Your task to perform on an android device: check the backup settings in the google photos Image 0: 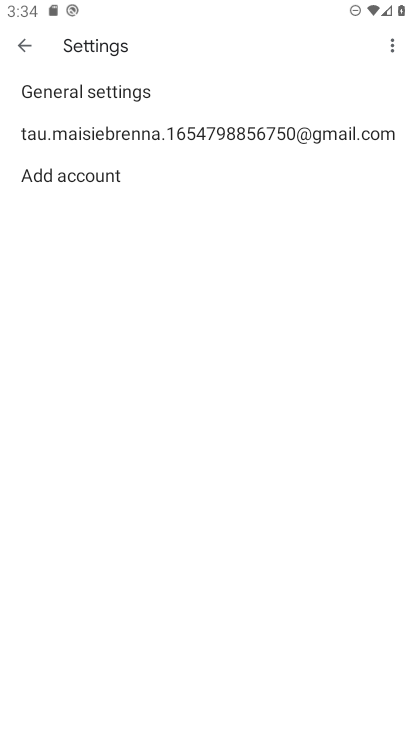
Step 0: press back button
Your task to perform on an android device: check the backup settings in the google photos Image 1: 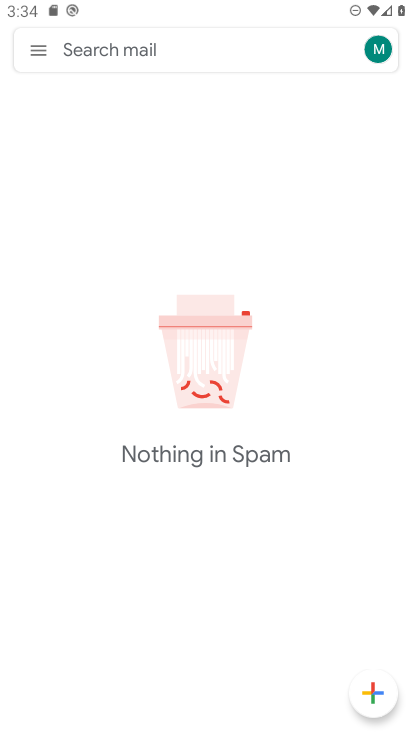
Step 1: press home button
Your task to perform on an android device: check the backup settings in the google photos Image 2: 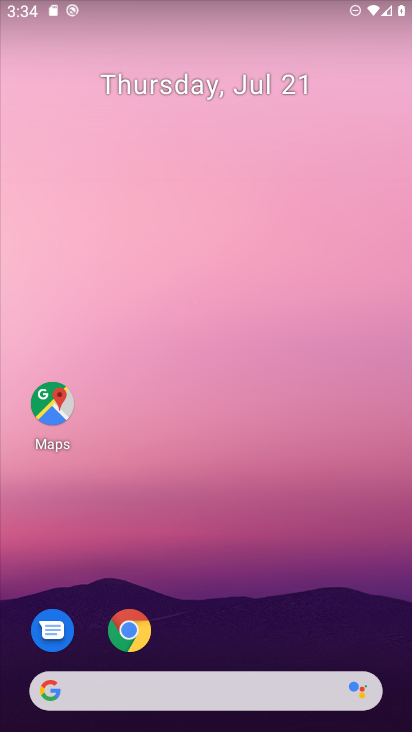
Step 2: drag from (210, 623) to (308, 43)
Your task to perform on an android device: check the backup settings in the google photos Image 3: 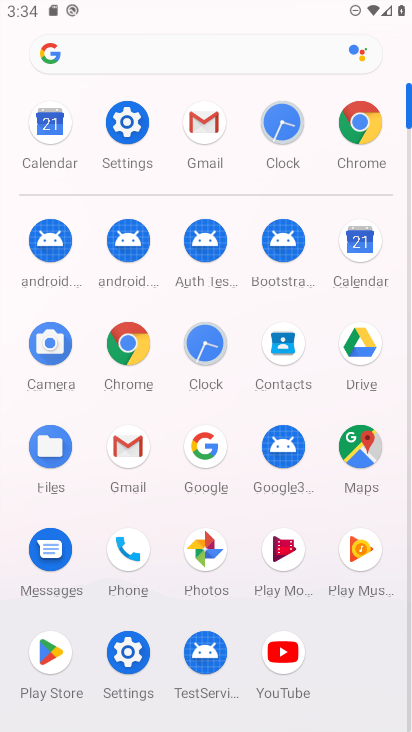
Step 3: click (208, 552)
Your task to perform on an android device: check the backup settings in the google photos Image 4: 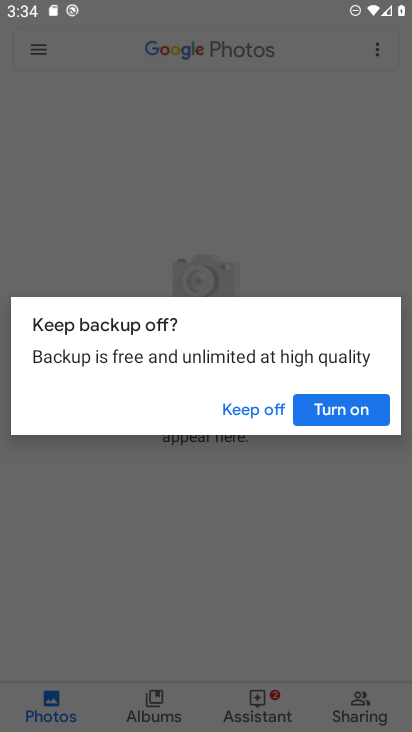
Step 4: click (264, 406)
Your task to perform on an android device: check the backup settings in the google photos Image 5: 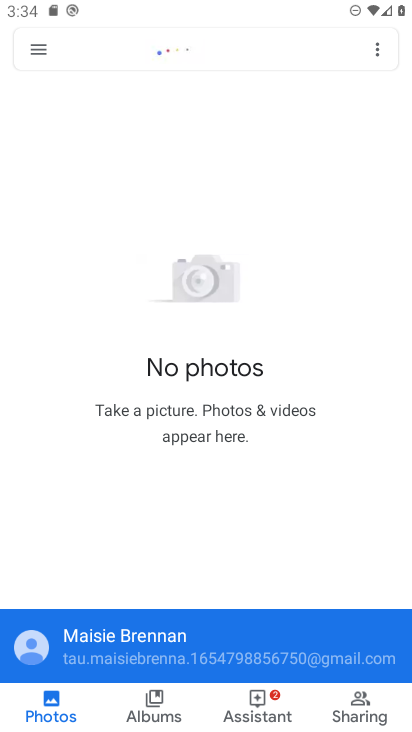
Step 5: click (43, 48)
Your task to perform on an android device: check the backup settings in the google photos Image 6: 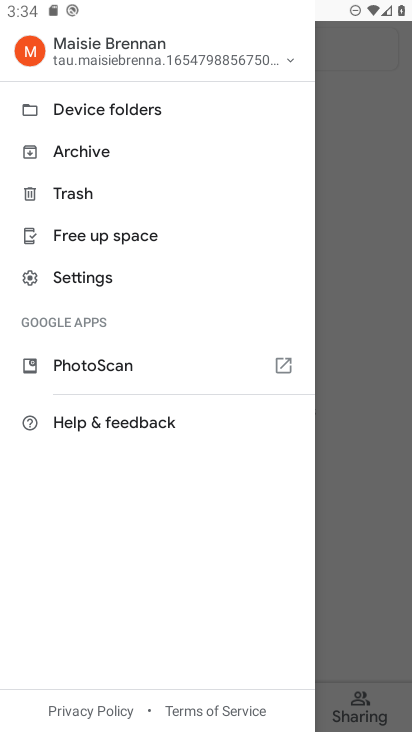
Step 6: click (116, 275)
Your task to perform on an android device: check the backup settings in the google photos Image 7: 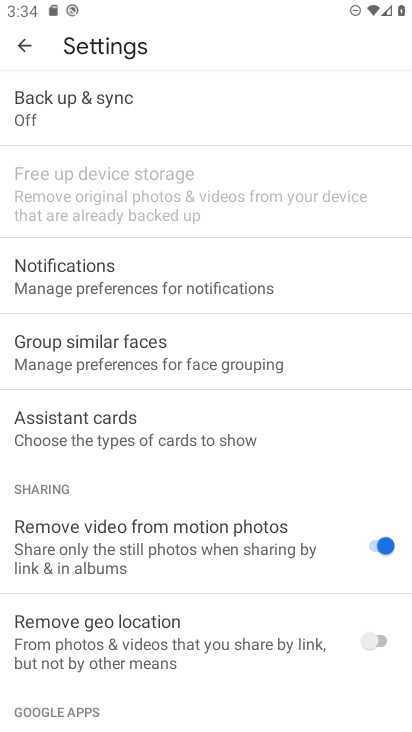
Step 7: click (164, 96)
Your task to perform on an android device: check the backup settings in the google photos Image 8: 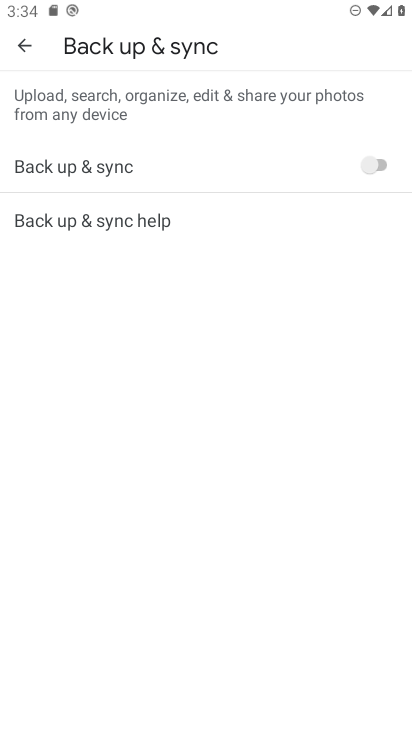
Step 8: task complete